Your task to perform on an android device: See recent photos Image 0: 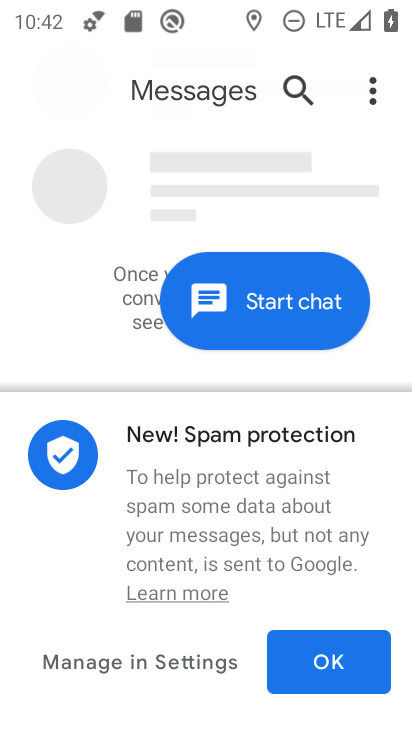
Step 0: press home button
Your task to perform on an android device: See recent photos Image 1: 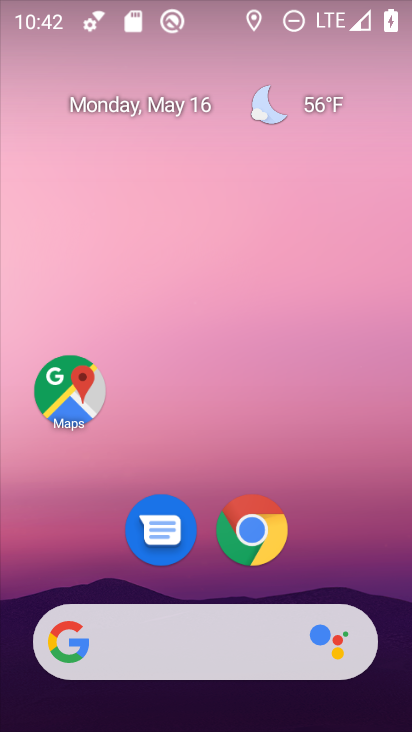
Step 1: drag from (206, 616) to (236, 279)
Your task to perform on an android device: See recent photos Image 2: 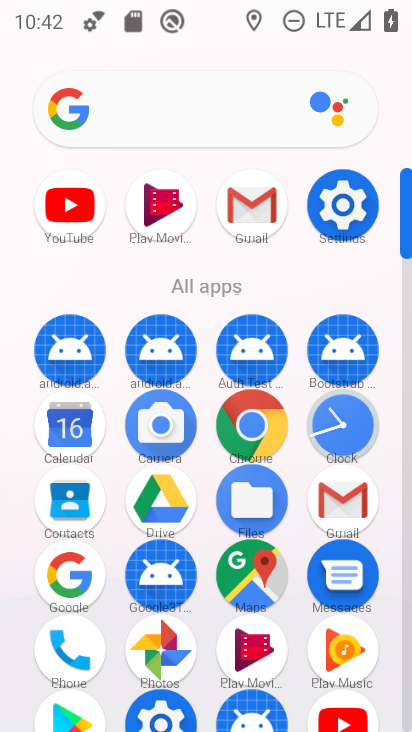
Step 2: click (178, 645)
Your task to perform on an android device: See recent photos Image 3: 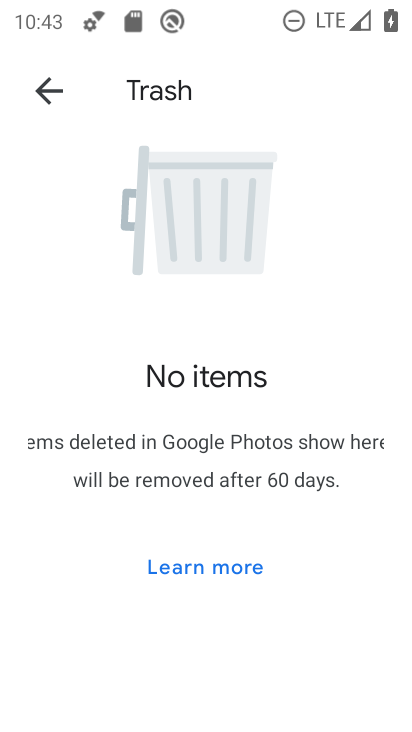
Step 3: click (49, 91)
Your task to perform on an android device: See recent photos Image 4: 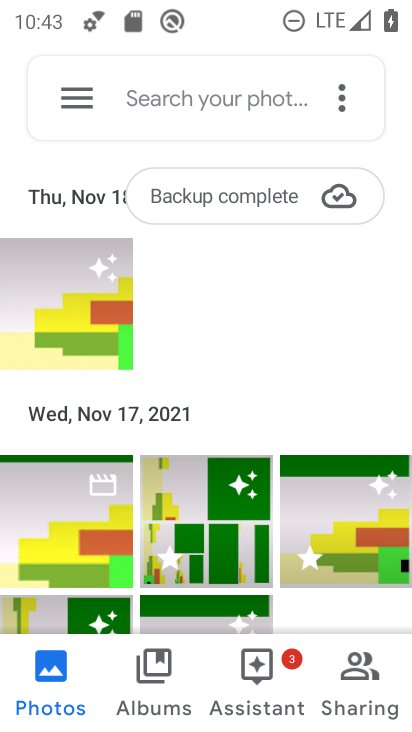
Step 4: task complete